Your task to perform on an android device: Open Chrome and go to the settings page Image 0: 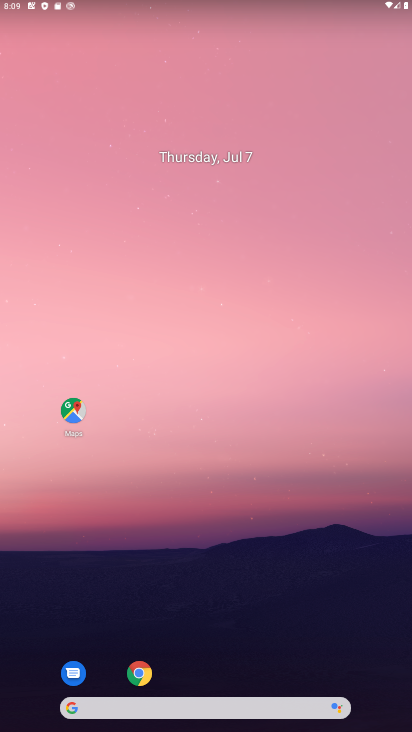
Step 0: press home button
Your task to perform on an android device: Open Chrome and go to the settings page Image 1: 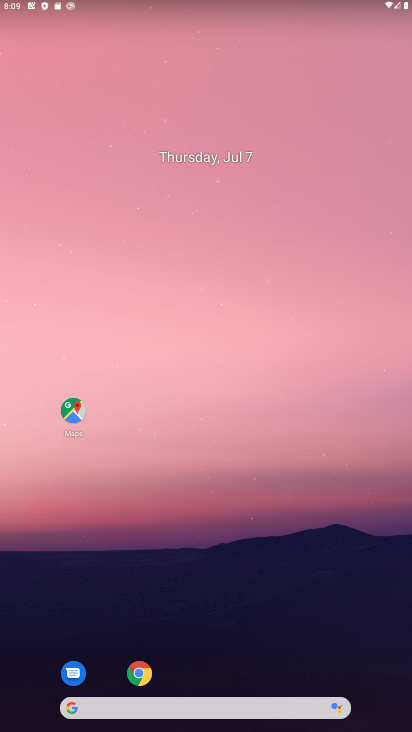
Step 1: click (138, 673)
Your task to perform on an android device: Open Chrome and go to the settings page Image 2: 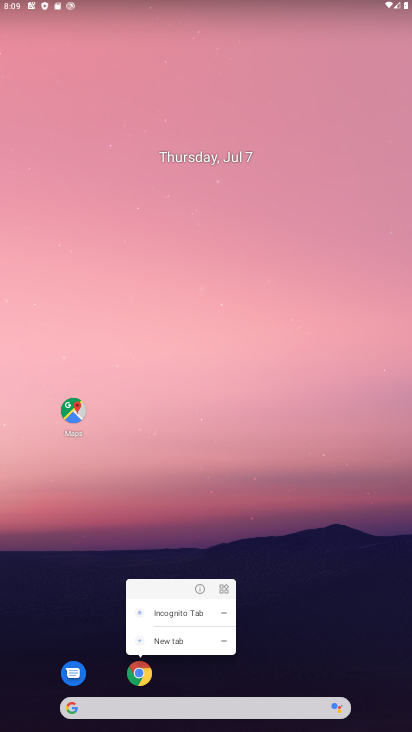
Step 2: drag from (284, 650) to (131, 39)
Your task to perform on an android device: Open Chrome and go to the settings page Image 3: 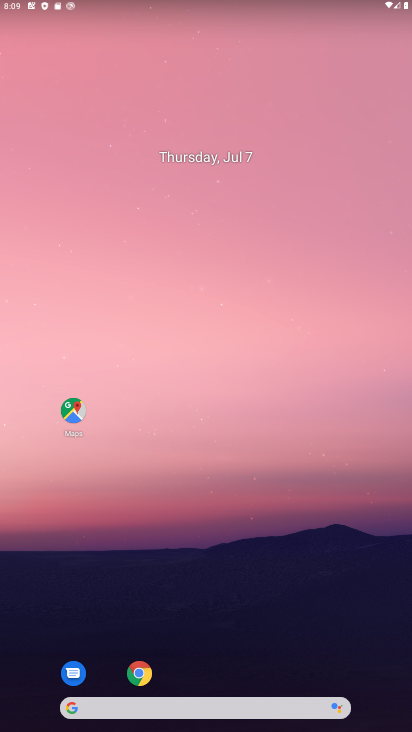
Step 3: drag from (254, 664) to (239, 194)
Your task to perform on an android device: Open Chrome and go to the settings page Image 4: 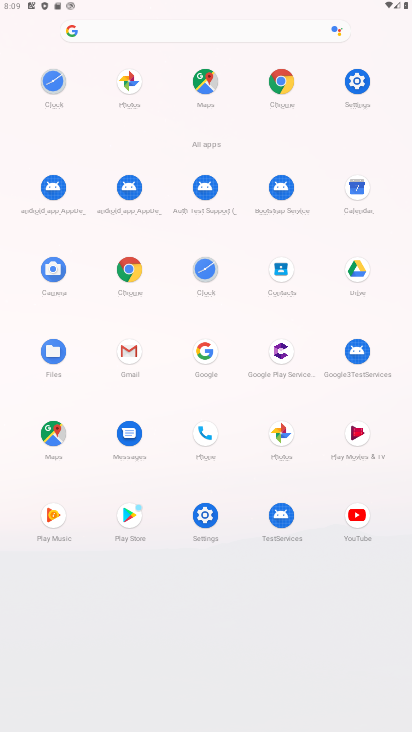
Step 4: click (281, 79)
Your task to perform on an android device: Open Chrome and go to the settings page Image 5: 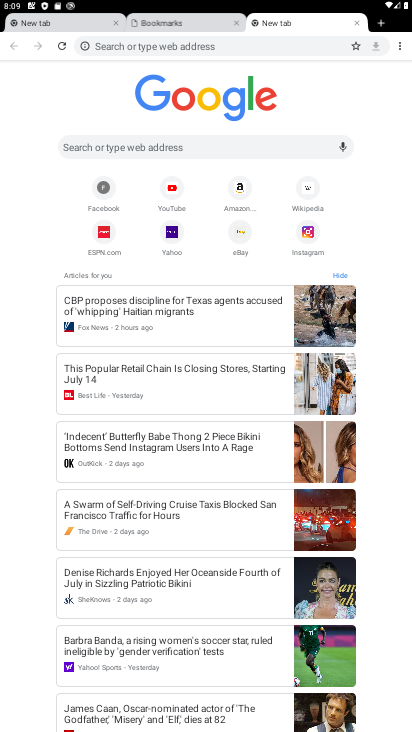
Step 5: task complete